Your task to perform on an android device: Show me productivity apps on the Play Store Image 0: 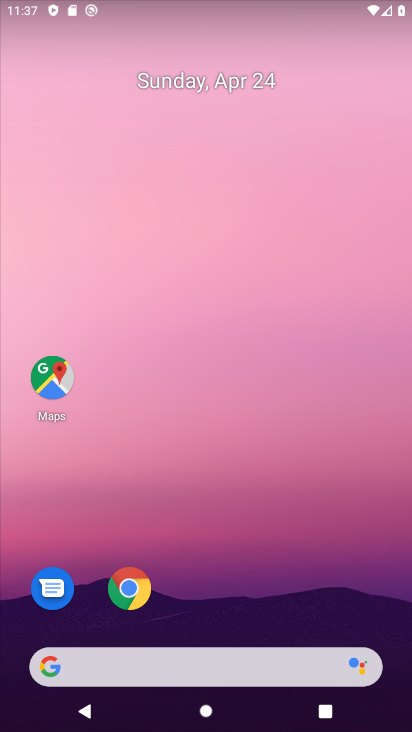
Step 0: drag from (304, 563) to (296, 81)
Your task to perform on an android device: Show me productivity apps on the Play Store Image 1: 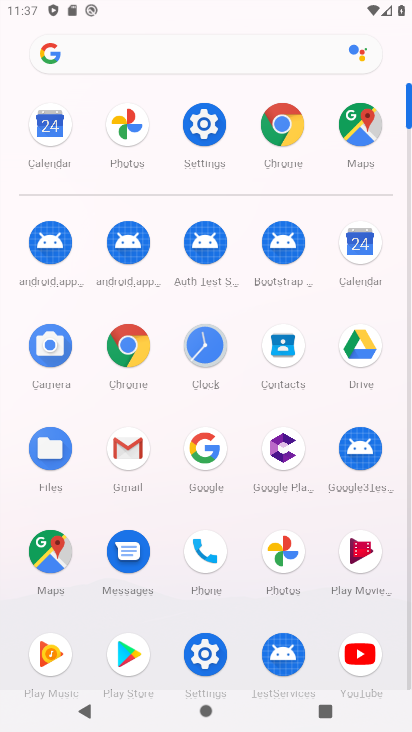
Step 1: click (132, 649)
Your task to perform on an android device: Show me productivity apps on the Play Store Image 2: 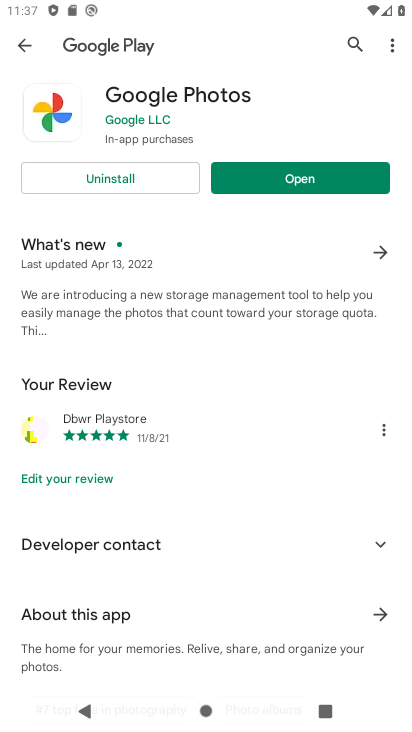
Step 2: click (25, 47)
Your task to perform on an android device: Show me productivity apps on the Play Store Image 3: 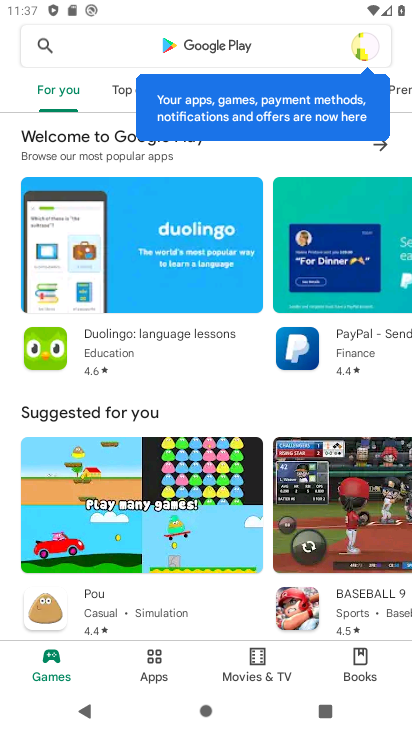
Step 3: click (184, 56)
Your task to perform on an android device: Show me productivity apps on the Play Store Image 4: 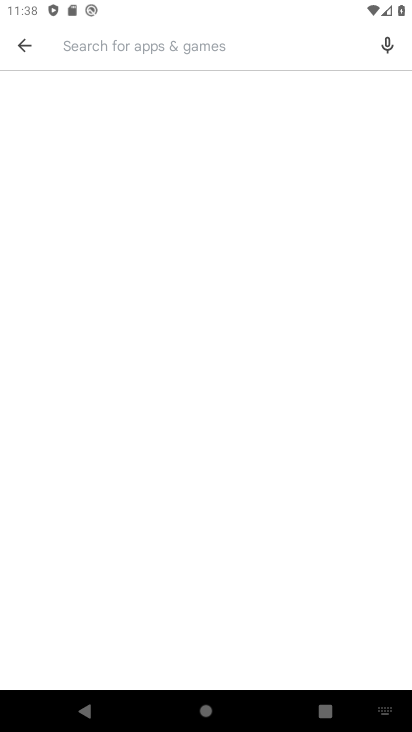
Step 4: type "productivity apps"
Your task to perform on an android device: Show me productivity apps on the Play Store Image 5: 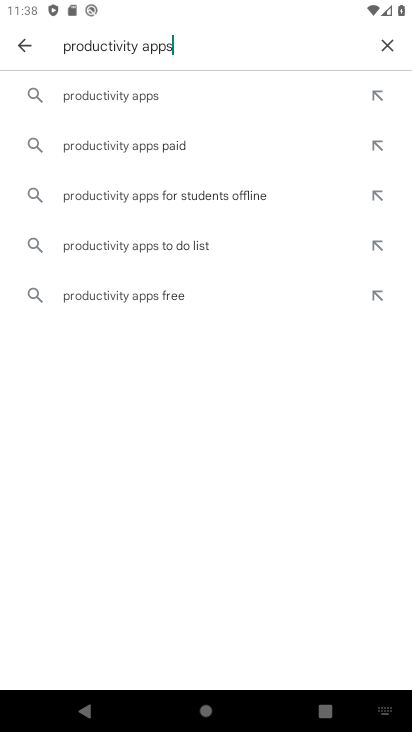
Step 5: click (157, 103)
Your task to perform on an android device: Show me productivity apps on the Play Store Image 6: 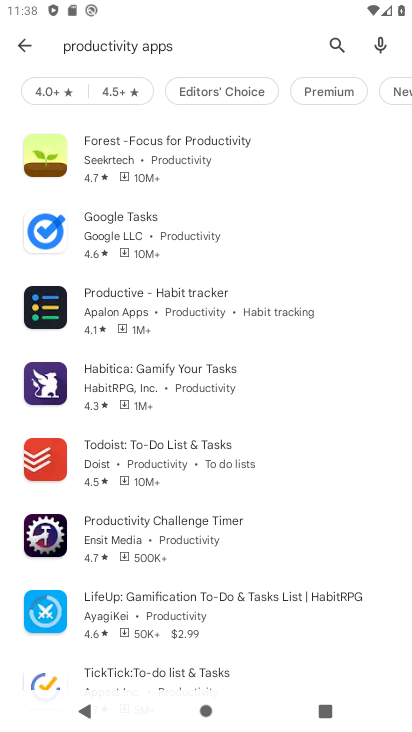
Step 6: task complete